Your task to perform on an android device: Open accessibility settings Image 0: 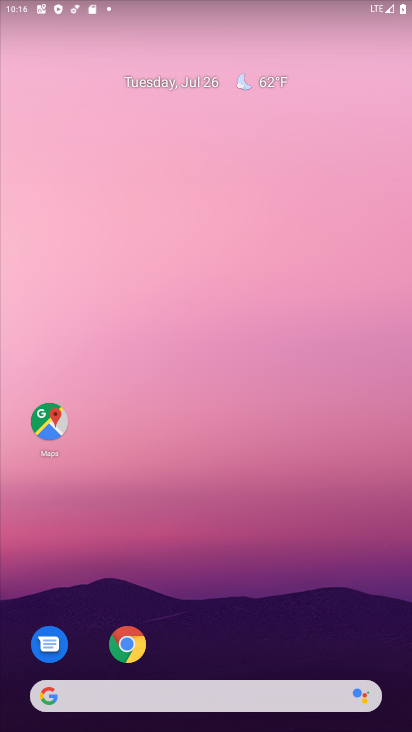
Step 0: drag from (257, 650) to (204, 7)
Your task to perform on an android device: Open accessibility settings Image 1: 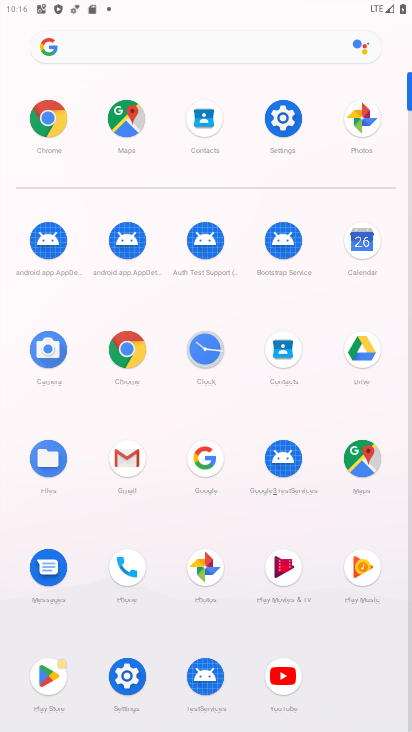
Step 1: click (279, 135)
Your task to perform on an android device: Open accessibility settings Image 2: 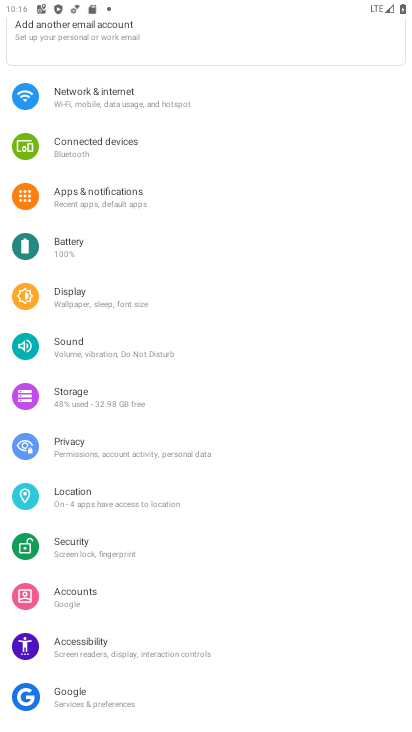
Step 2: click (91, 646)
Your task to perform on an android device: Open accessibility settings Image 3: 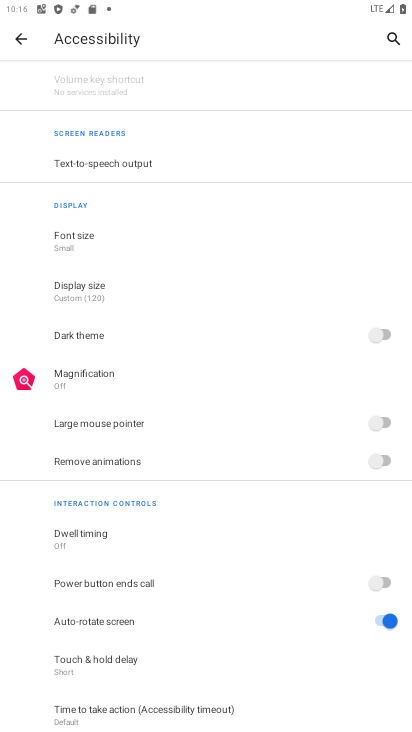
Step 3: task complete